Your task to perform on an android device: open app "Cash App" (install if not already installed), go to login, and select forgot password Image 0: 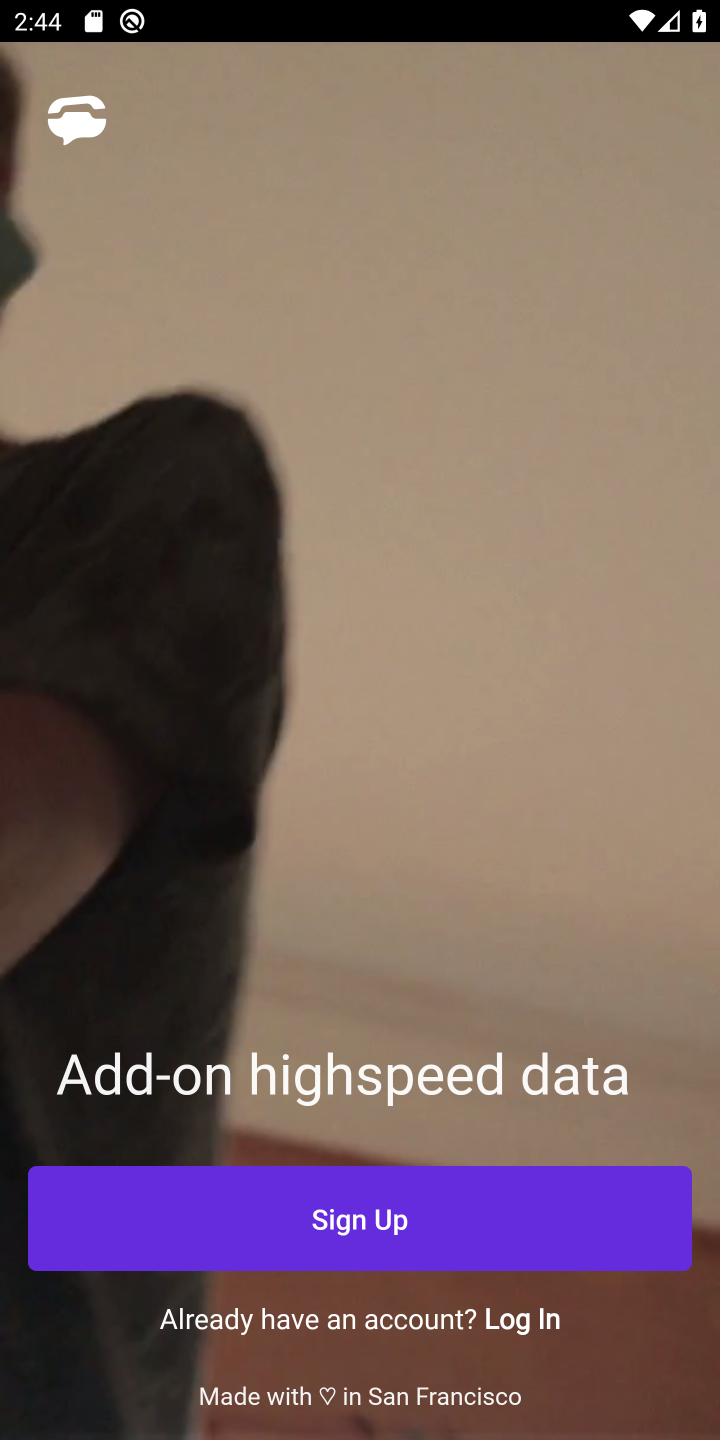
Step 0: press home button
Your task to perform on an android device: open app "Cash App" (install if not already installed), go to login, and select forgot password Image 1: 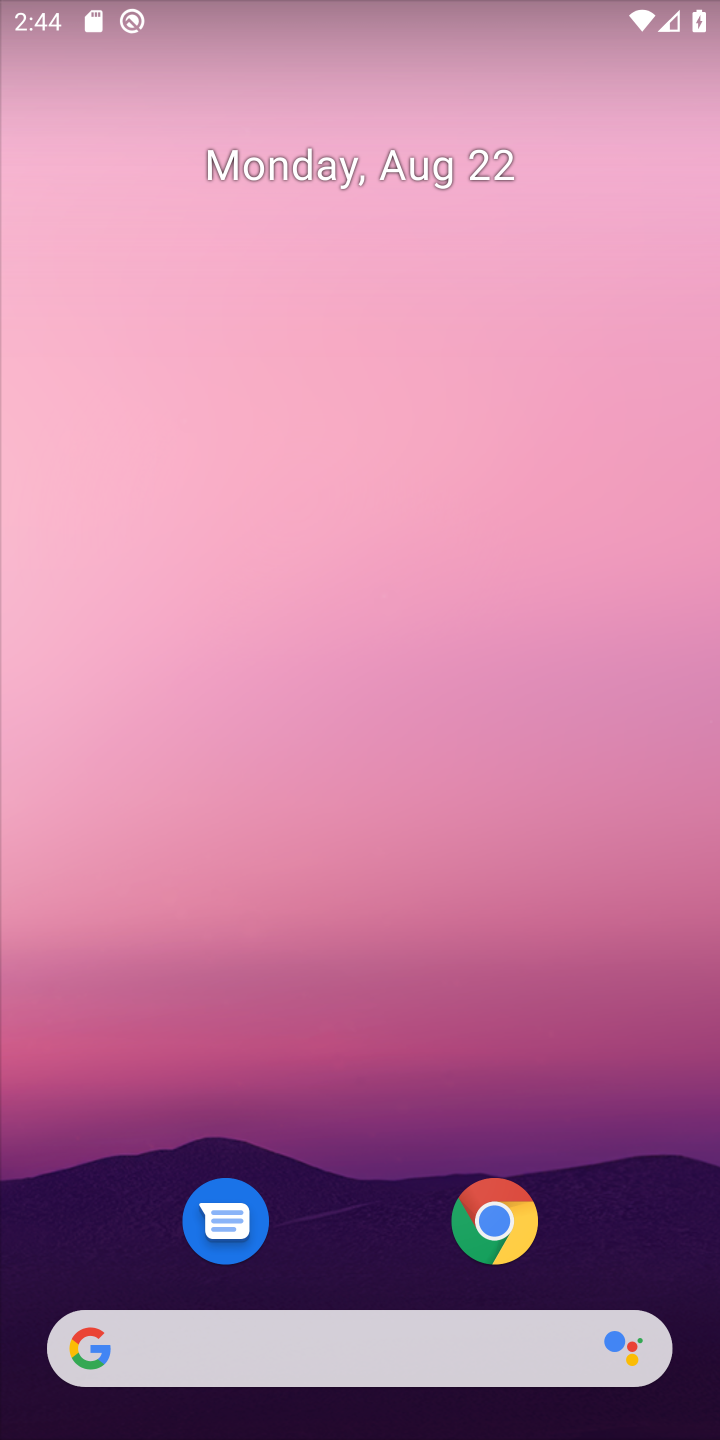
Step 1: drag from (389, 1223) to (362, 245)
Your task to perform on an android device: open app "Cash App" (install if not already installed), go to login, and select forgot password Image 2: 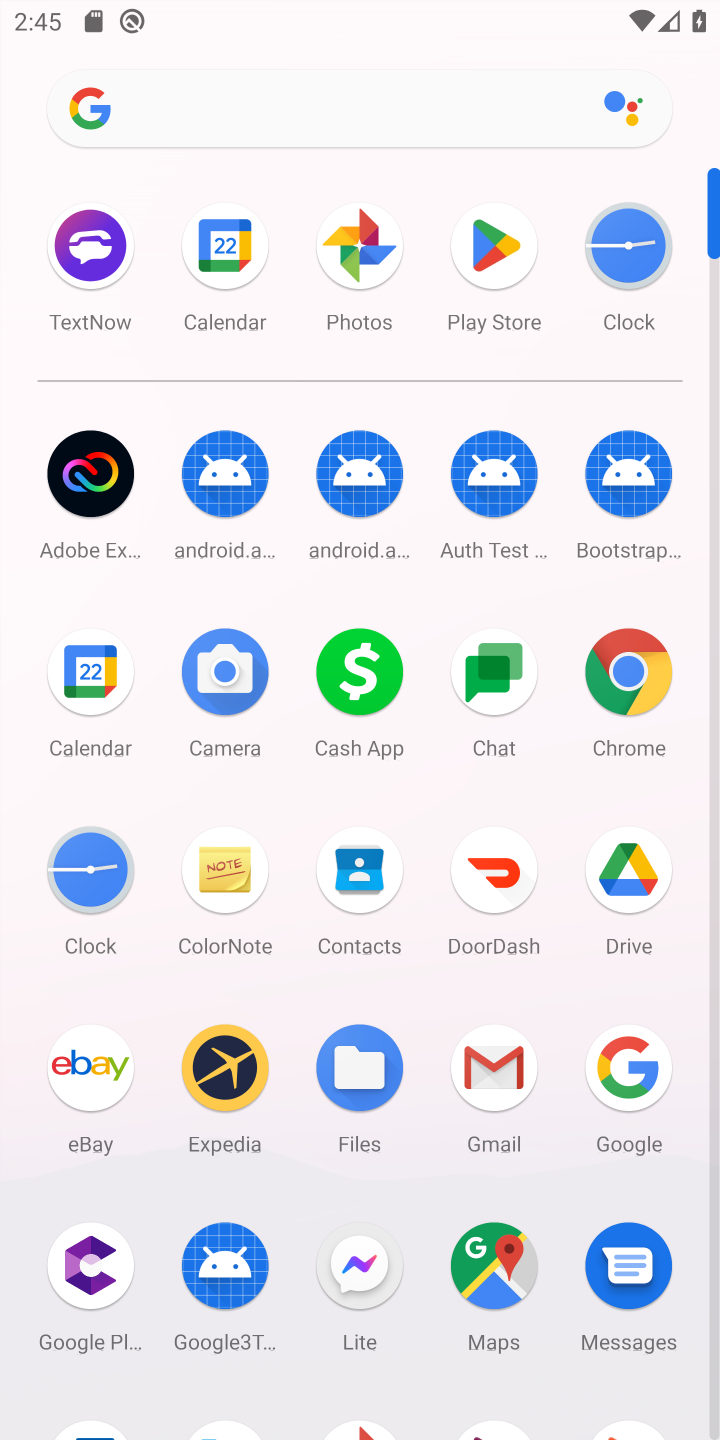
Step 2: click (486, 238)
Your task to perform on an android device: open app "Cash App" (install if not already installed), go to login, and select forgot password Image 3: 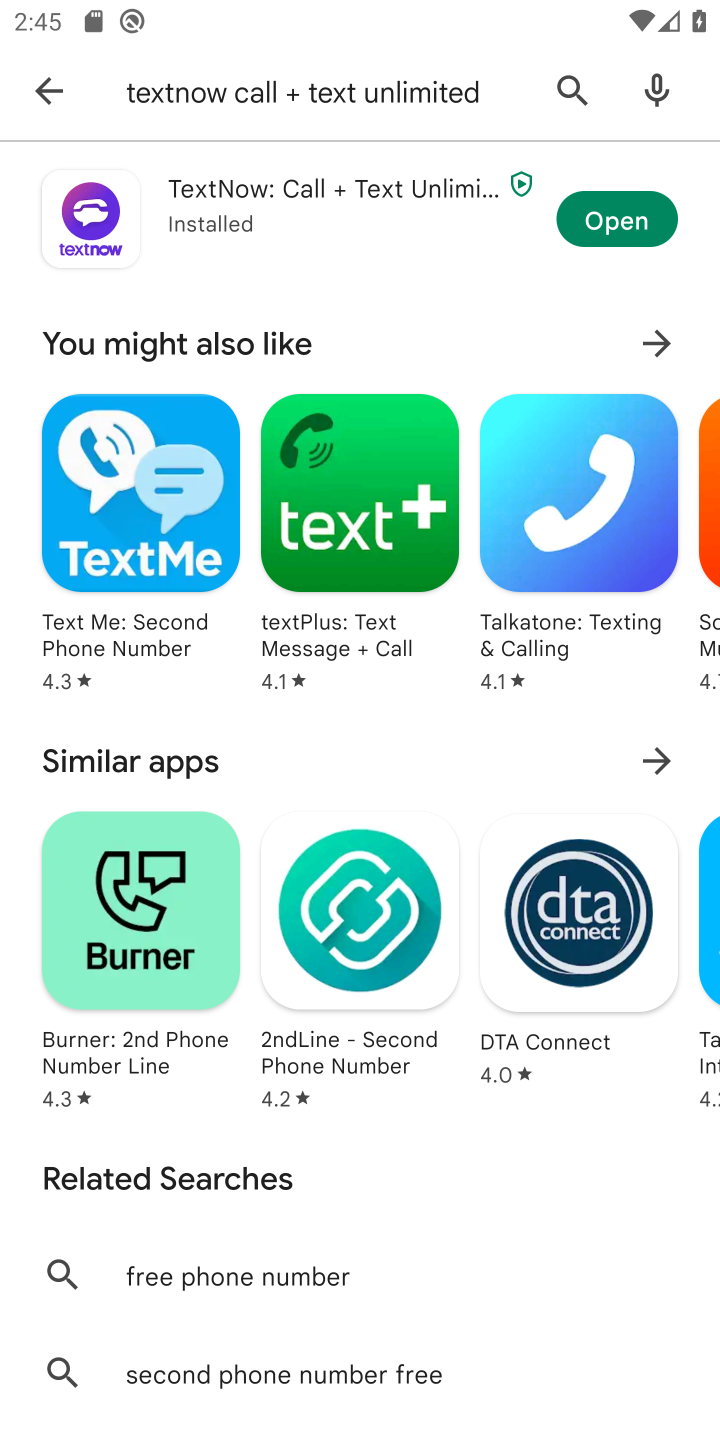
Step 3: click (570, 89)
Your task to perform on an android device: open app "Cash App" (install if not already installed), go to login, and select forgot password Image 4: 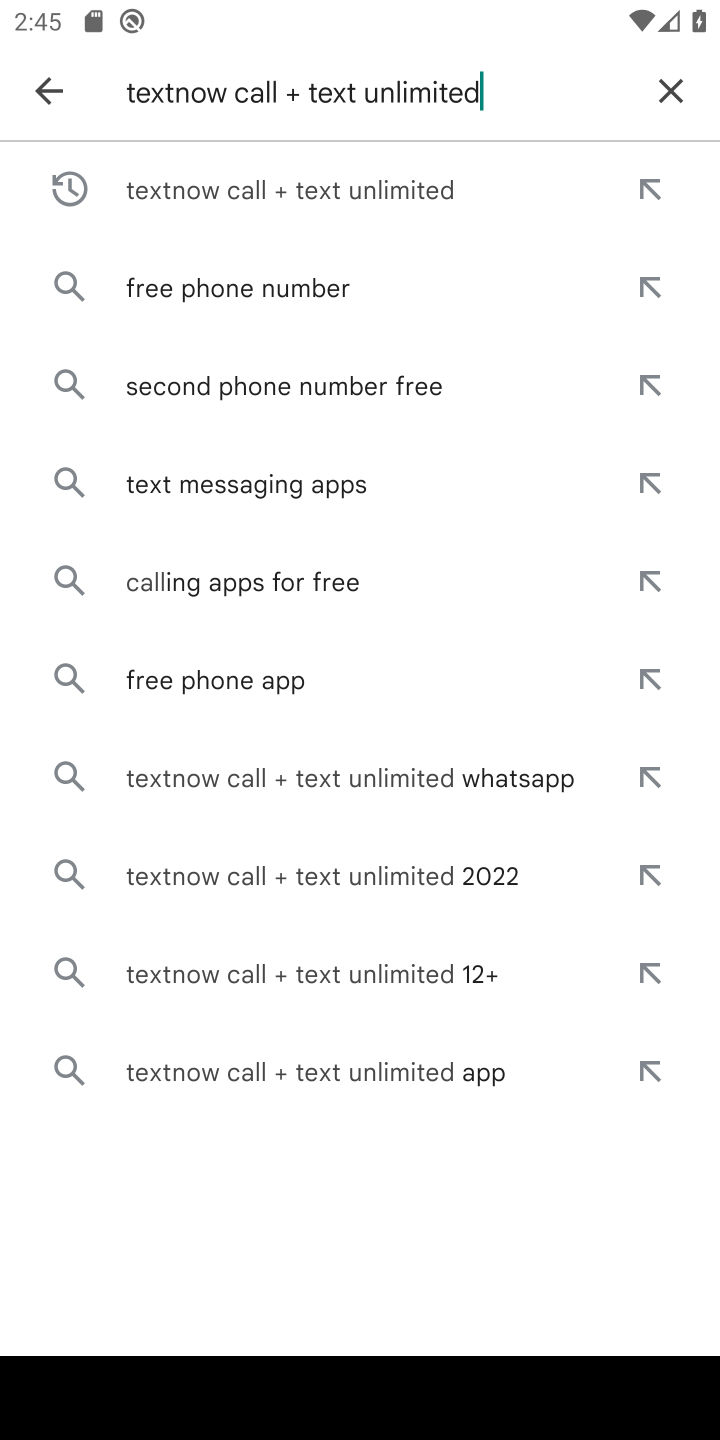
Step 4: click (671, 90)
Your task to perform on an android device: open app "Cash App" (install if not already installed), go to login, and select forgot password Image 5: 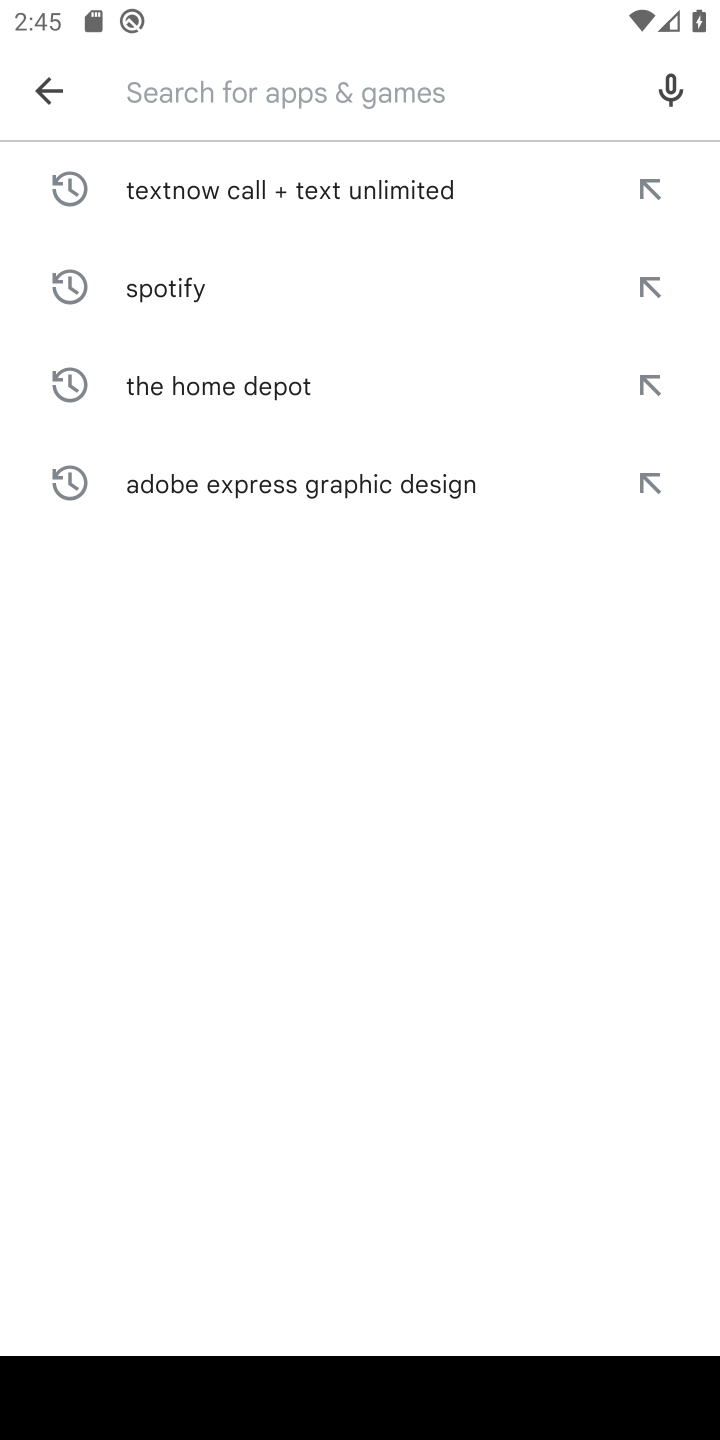
Step 5: type "Cash App"
Your task to perform on an android device: open app "Cash App" (install if not already installed), go to login, and select forgot password Image 6: 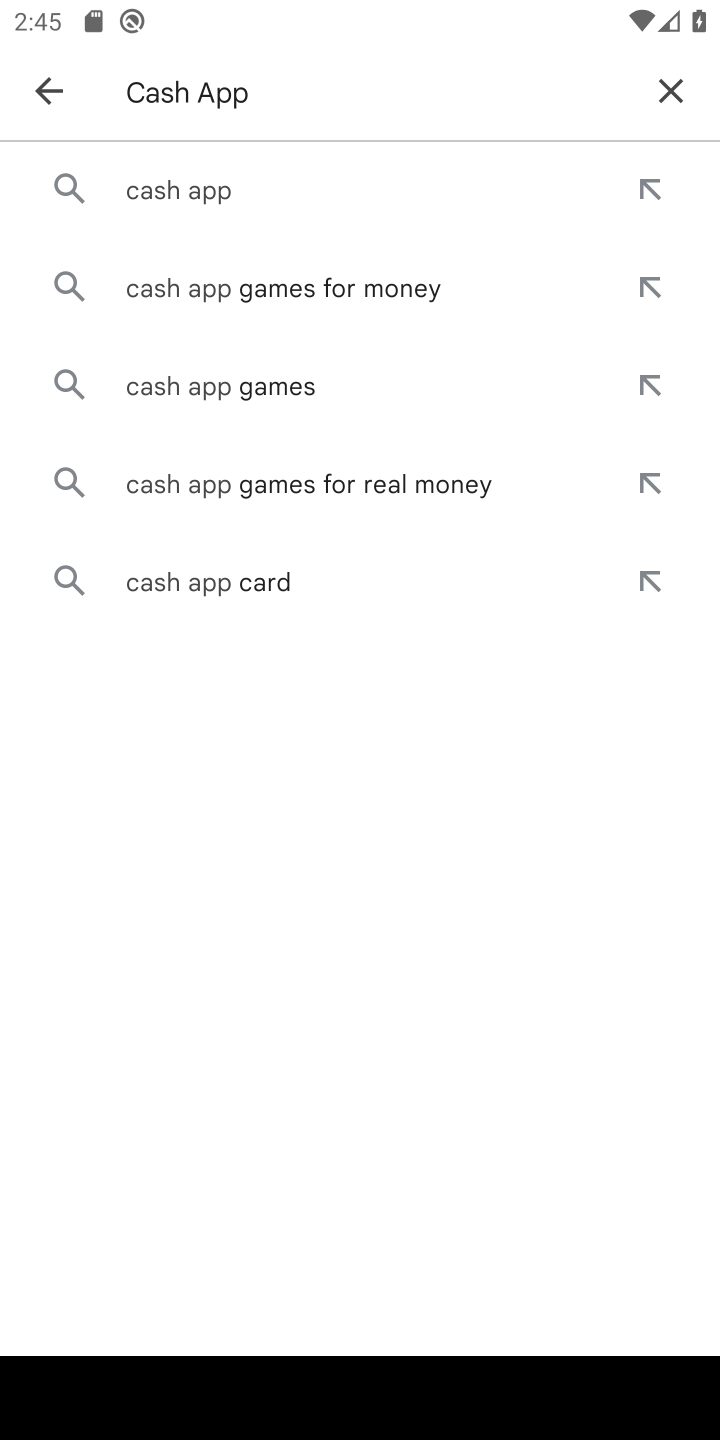
Step 6: click (184, 202)
Your task to perform on an android device: open app "Cash App" (install if not already installed), go to login, and select forgot password Image 7: 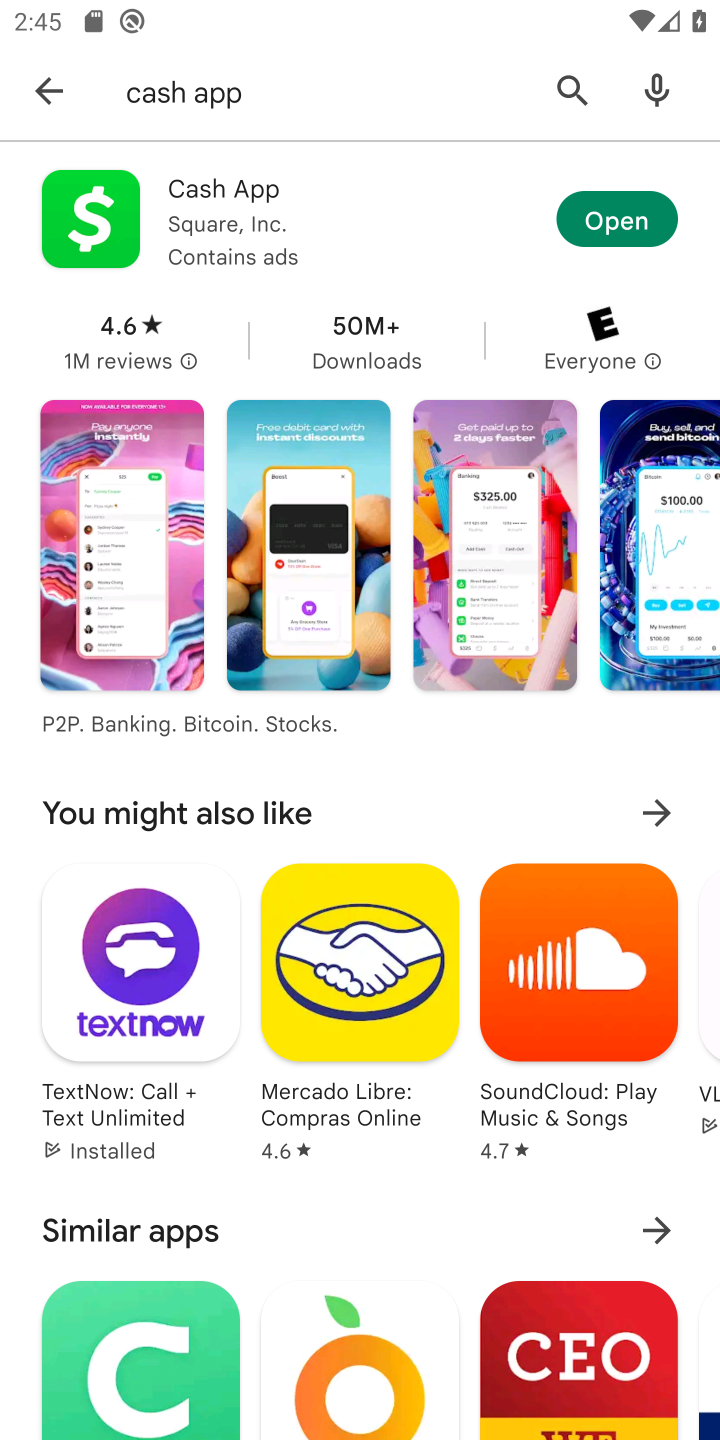
Step 7: click (624, 212)
Your task to perform on an android device: open app "Cash App" (install if not already installed), go to login, and select forgot password Image 8: 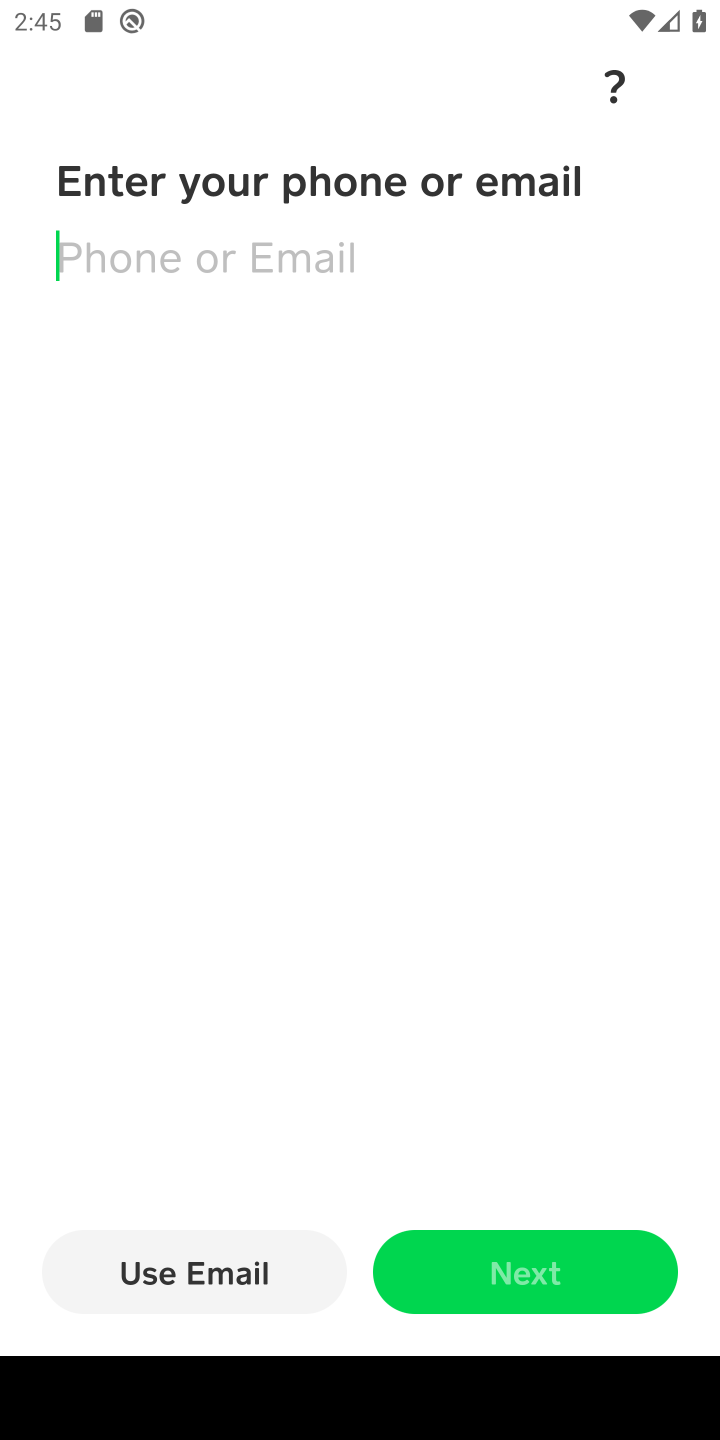
Step 8: click (186, 1284)
Your task to perform on an android device: open app "Cash App" (install if not already installed), go to login, and select forgot password Image 9: 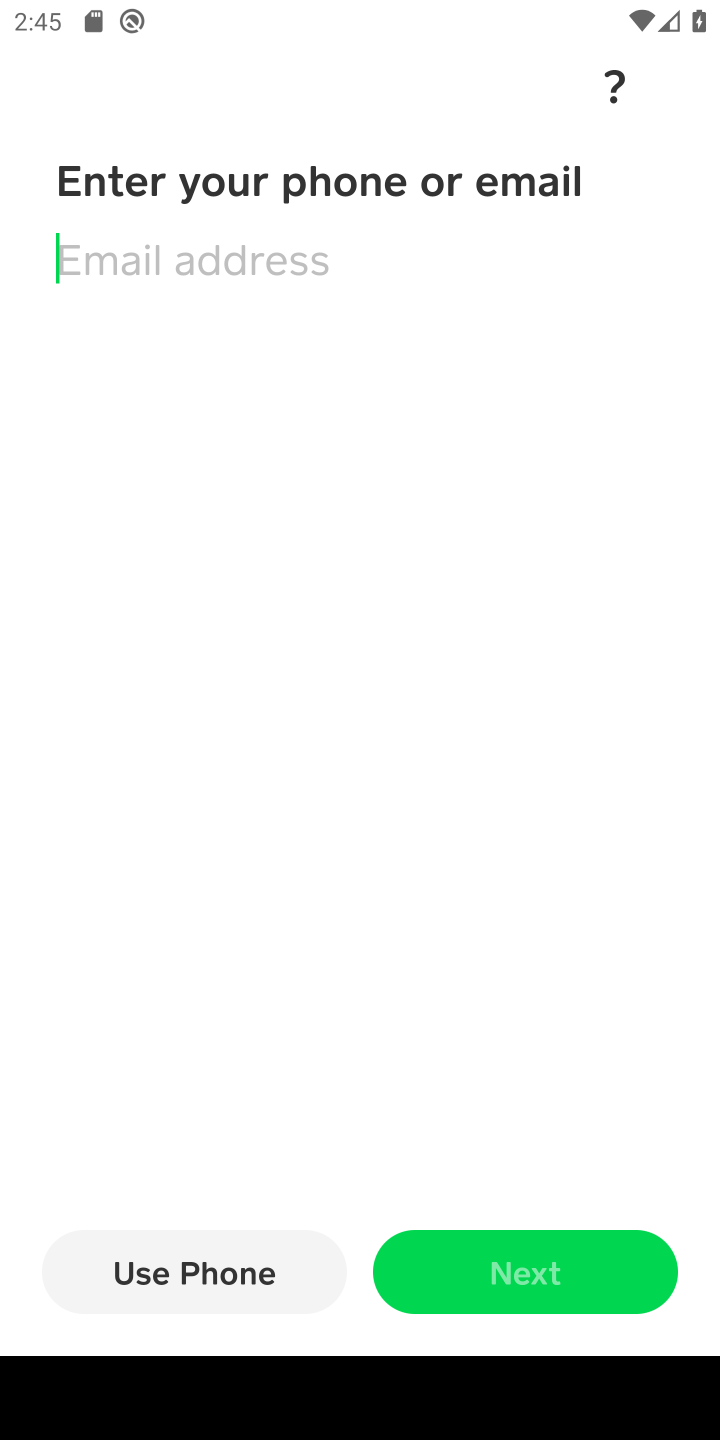
Step 9: click (243, 1276)
Your task to perform on an android device: open app "Cash App" (install if not already installed), go to login, and select forgot password Image 10: 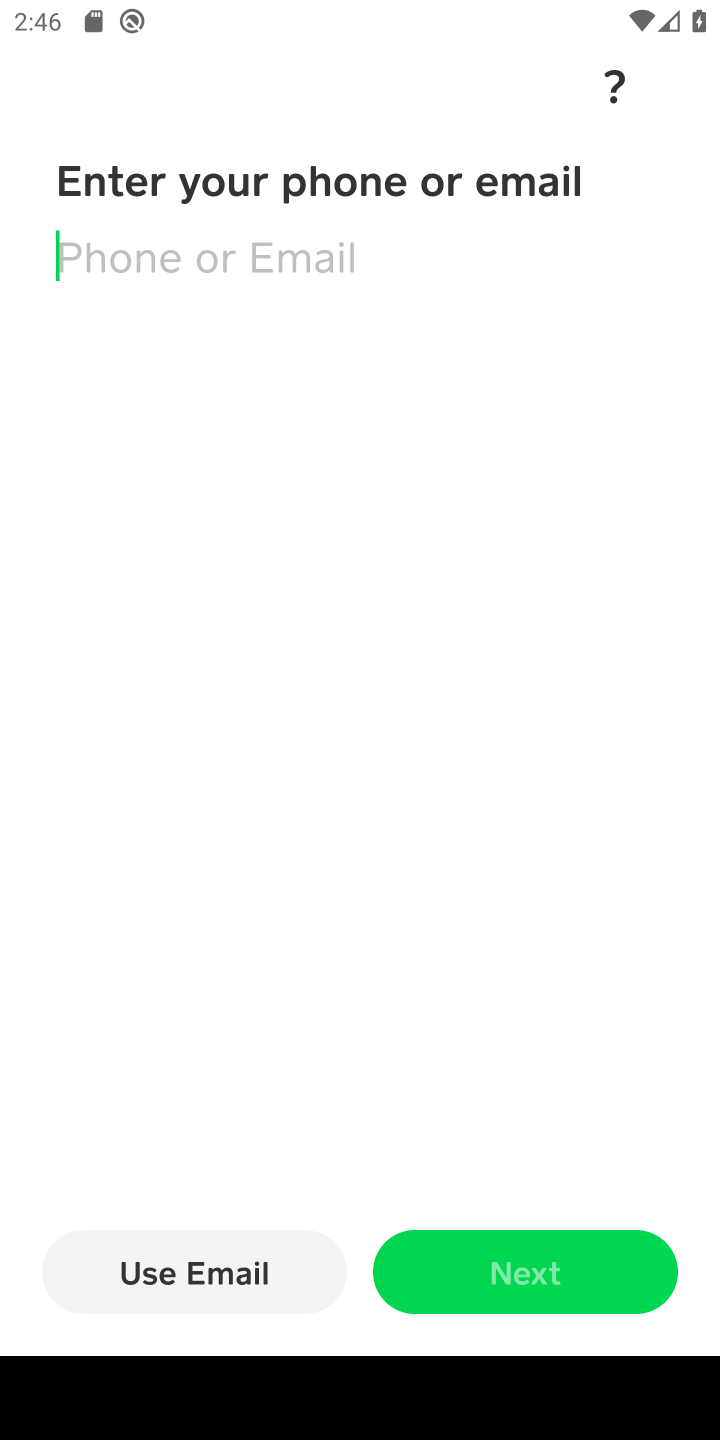
Step 10: click (596, 1282)
Your task to perform on an android device: open app "Cash App" (install if not already installed), go to login, and select forgot password Image 11: 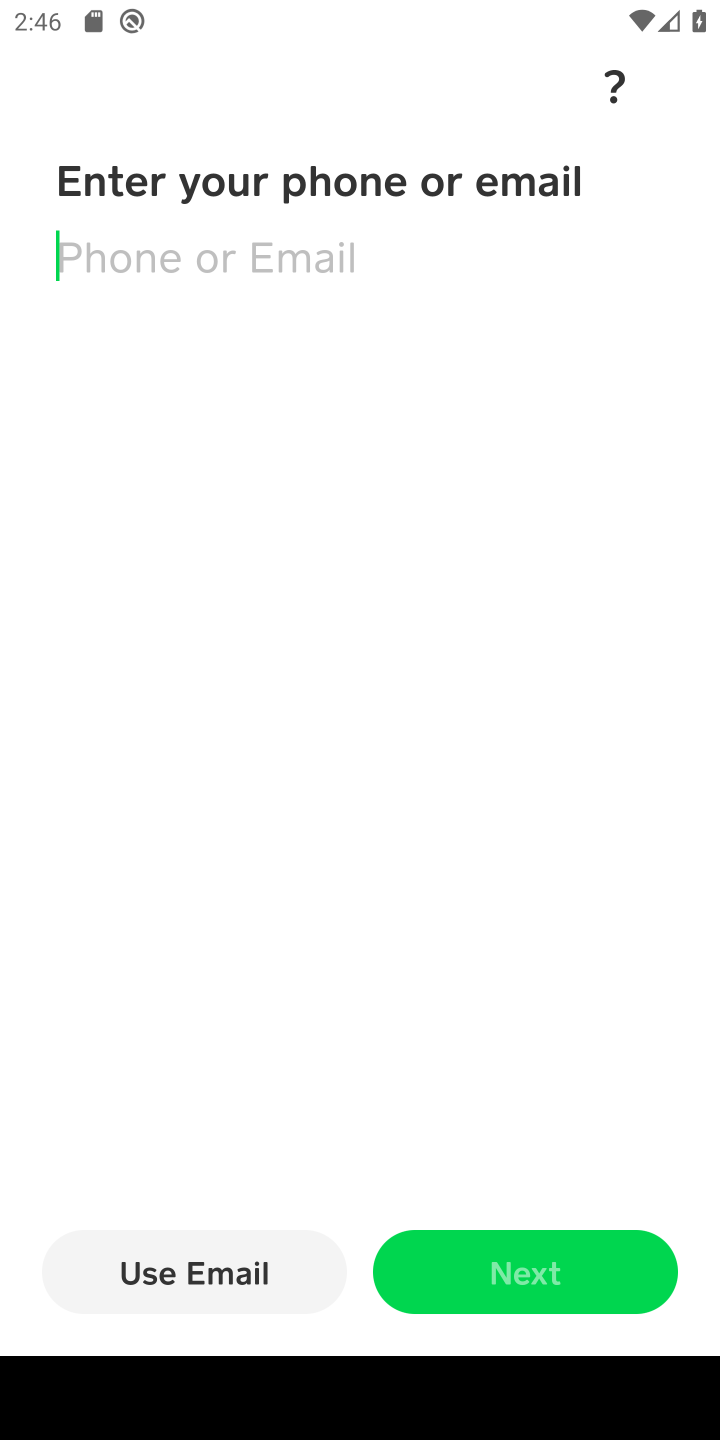
Step 11: task complete